Your task to perform on an android device: What's the weather going to be tomorrow? Image 0: 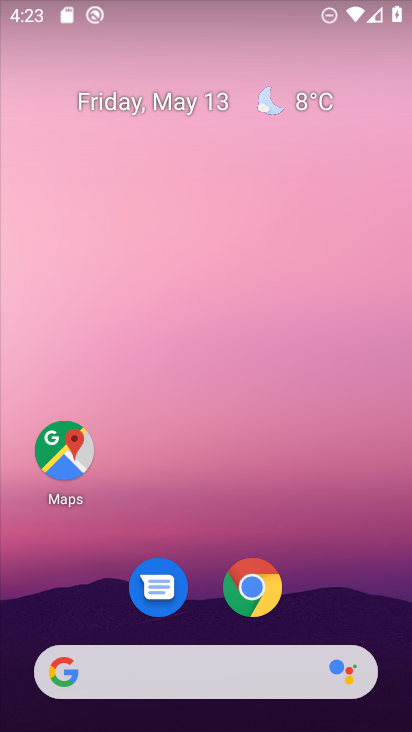
Step 0: drag from (196, 623) to (261, 203)
Your task to perform on an android device: What's the weather going to be tomorrow? Image 1: 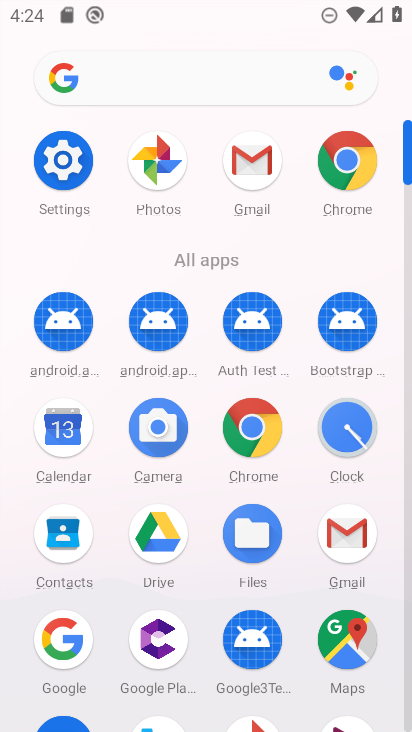
Step 1: click (78, 640)
Your task to perform on an android device: What's the weather going to be tomorrow? Image 2: 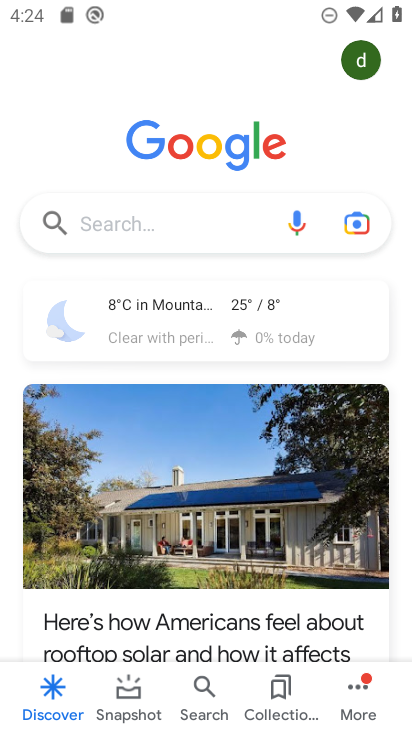
Step 2: click (195, 307)
Your task to perform on an android device: What's the weather going to be tomorrow? Image 3: 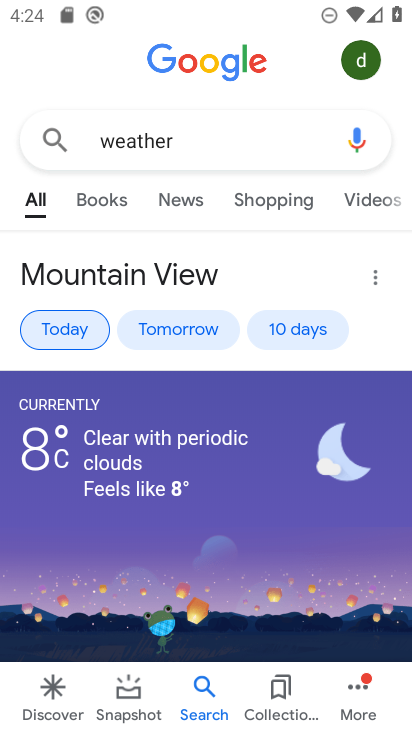
Step 3: click (188, 321)
Your task to perform on an android device: What's the weather going to be tomorrow? Image 4: 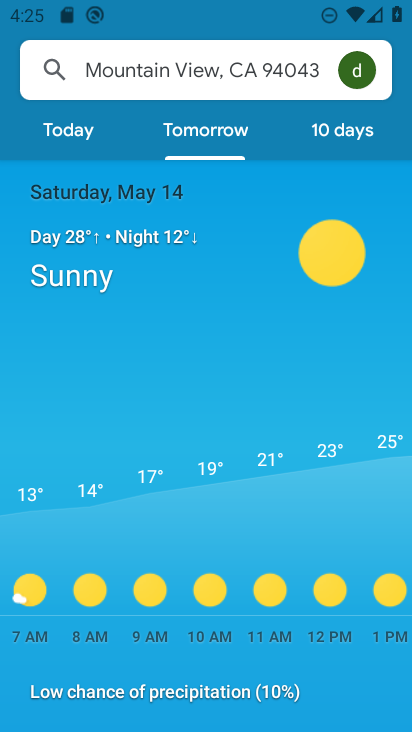
Step 4: task complete